Your task to perform on an android device: check data usage Image 0: 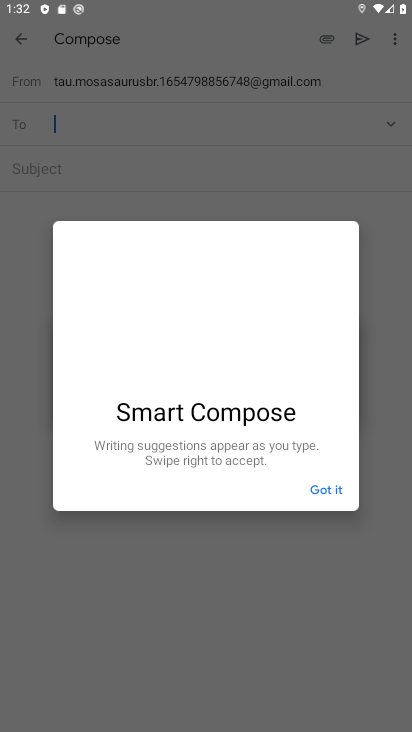
Step 0: press home button
Your task to perform on an android device: check data usage Image 1: 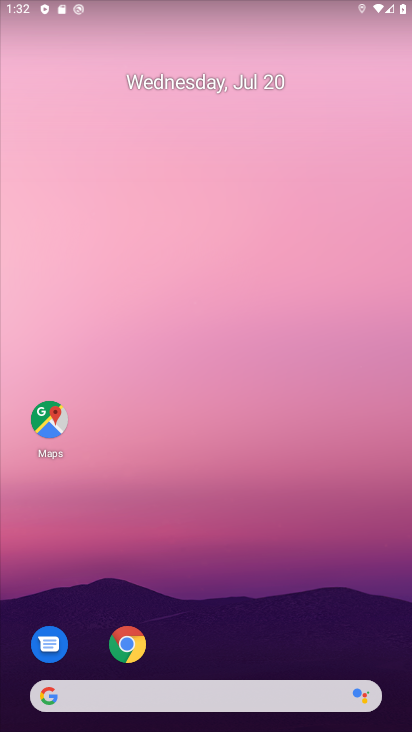
Step 1: drag from (319, 617) to (231, 20)
Your task to perform on an android device: check data usage Image 2: 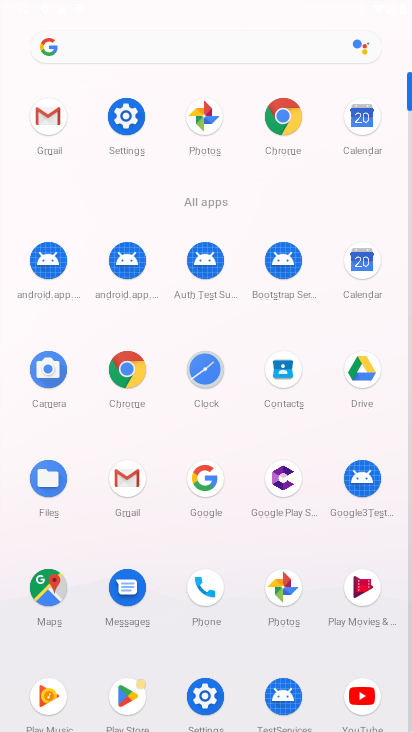
Step 2: click (129, 116)
Your task to perform on an android device: check data usage Image 3: 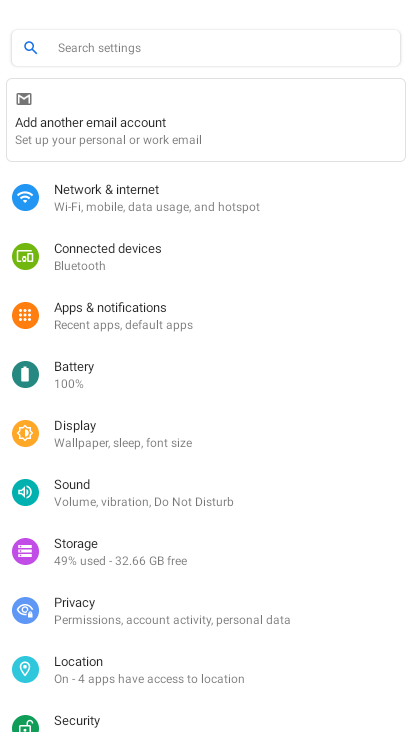
Step 3: click (98, 190)
Your task to perform on an android device: check data usage Image 4: 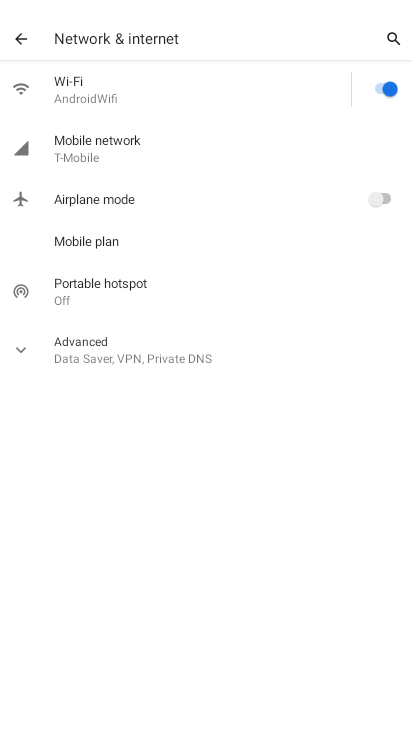
Step 4: click (112, 151)
Your task to perform on an android device: check data usage Image 5: 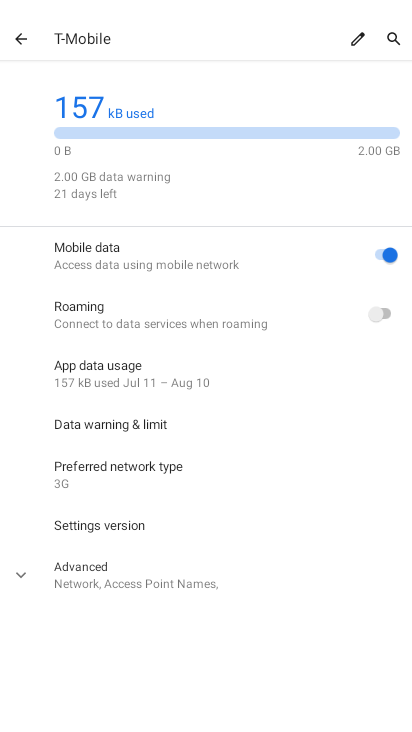
Step 5: click (124, 366)
Your task to perform on an android device: check data usage Image 6: 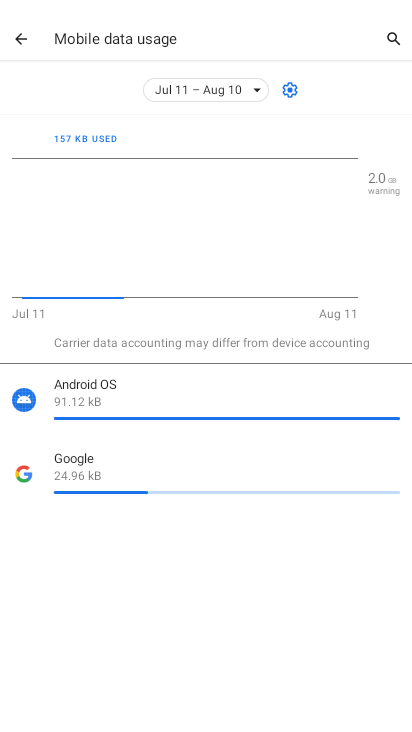
Step 6: task complete